Your task to perform on an android device: Open accessibility settings Image 0: 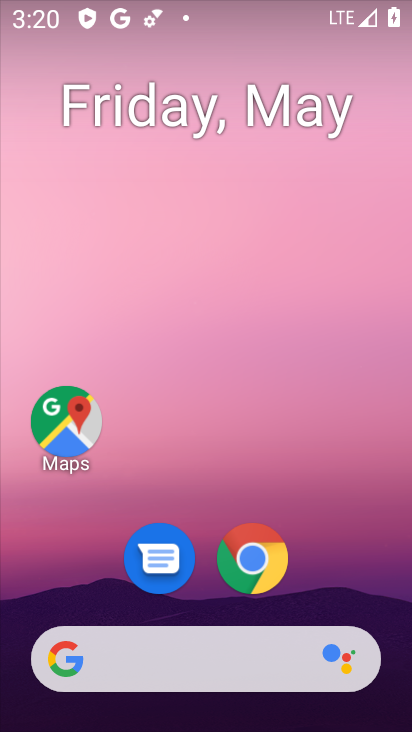
Step 0: press home button
Your task to perform on an android device: Open accessibility settings Image 1: 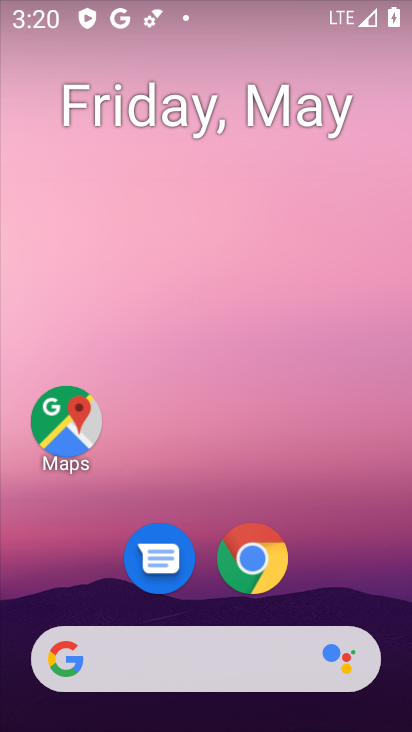
Step 1: drag from (207, 676) to (316, 235)
Your task to perform on an android device: Open accessibility settings Image 2: 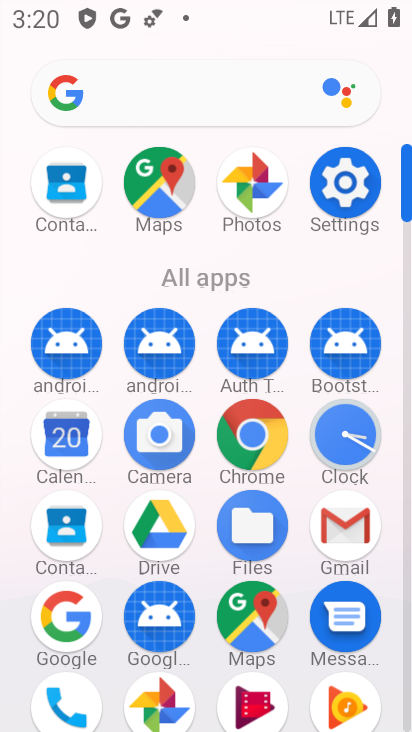
Step 2: click (341, 201)
Your task to perform on an android device: Open accessibility settings Image 3: 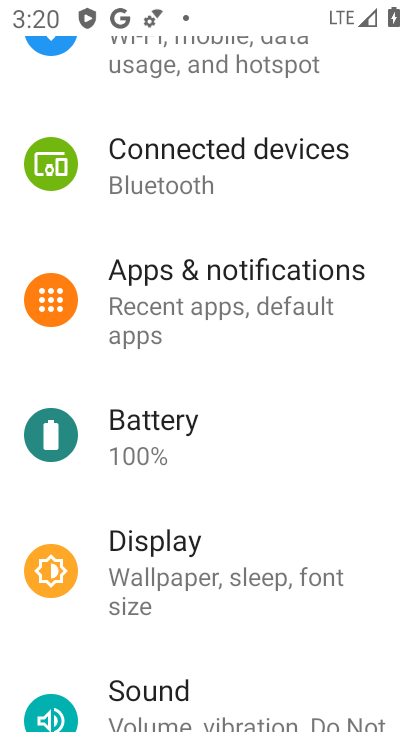
Step 3: drag from (238, 651) to (343, 108)
Your task to perform on an android device: Open accessibility settings Image 4: 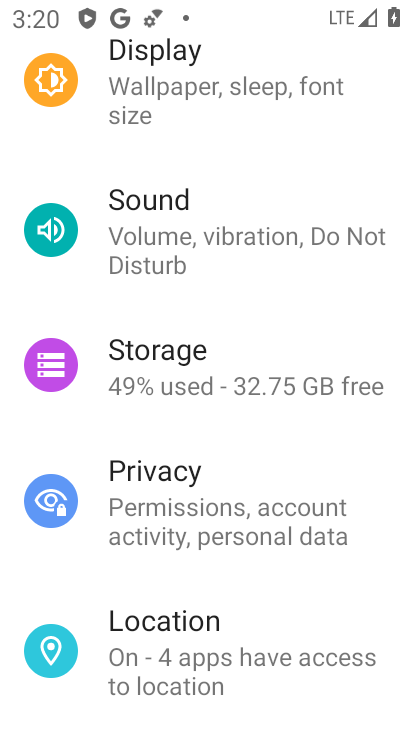
Step 4: drag from (246, 626) to (331, 109)
Your task to perform on an android device: Open accessibility settings Image 5: 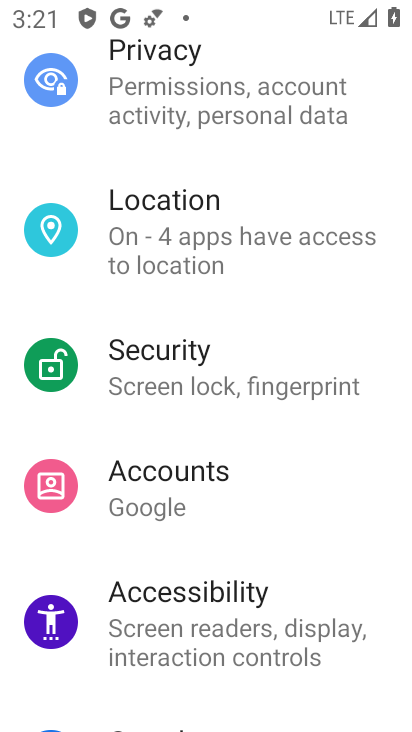
Step 5: click (207, 600)
Your task to perform on an android device: Open accessibility settings Image 6: 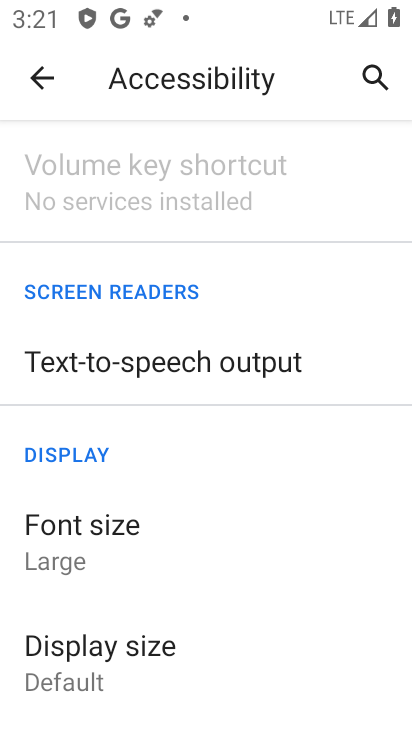
Step 6: task complete